Your task to perform on an android device: change the clock style Image 0: 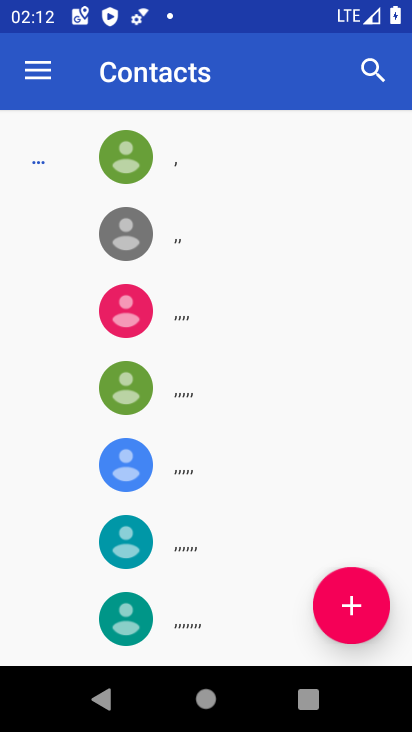
Step 0: press home button
Your task to perform on an android device: change the clock style Image 1: 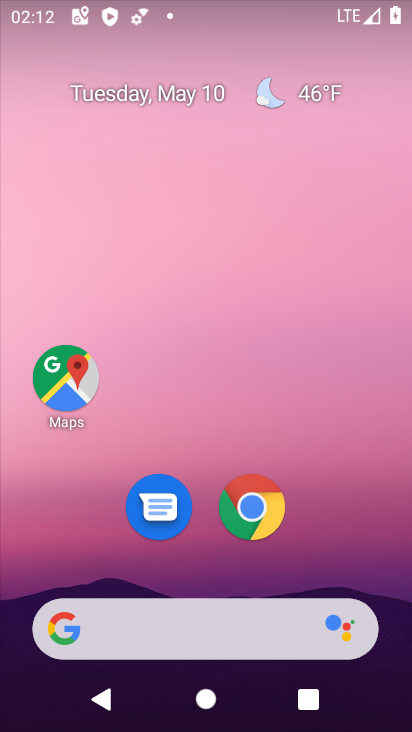
Step 1: drag from (243, 656) to (266, 168)
Your task to perform on an android device: change the clock style Image 2: 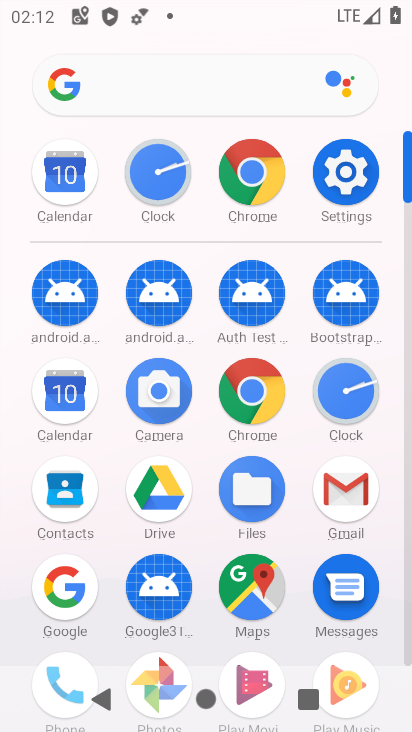
Step 2: click (323, 390)
Your task to perform on an android device: change the clock style Image 3: 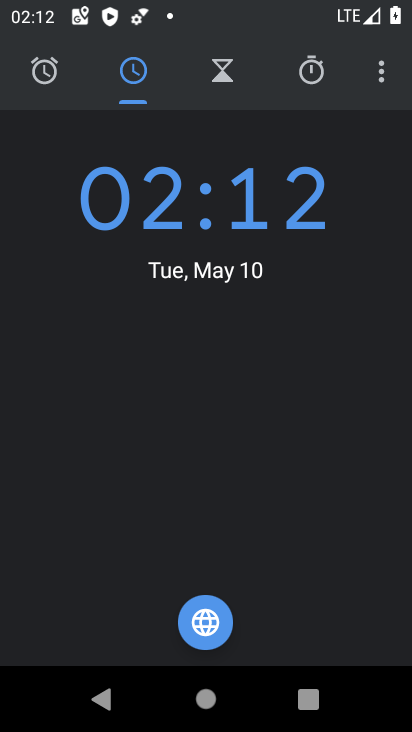
Step 3: click (380, 95)
Your task to perform on an android device: change the clock style Image 4: 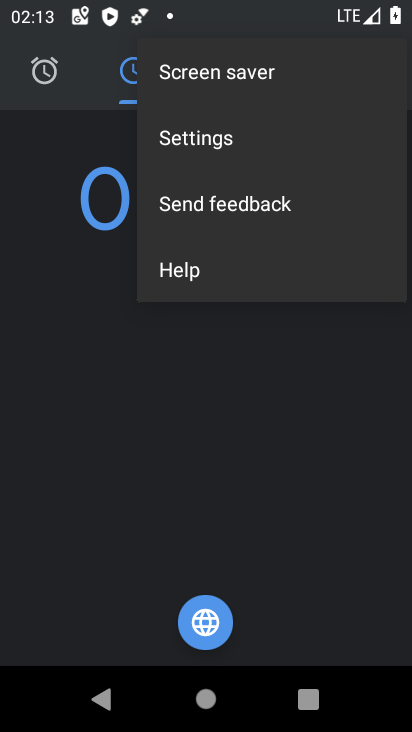
Step 4: click (226, 134)
Your task to perform on an android device: change the clock style Image 5: 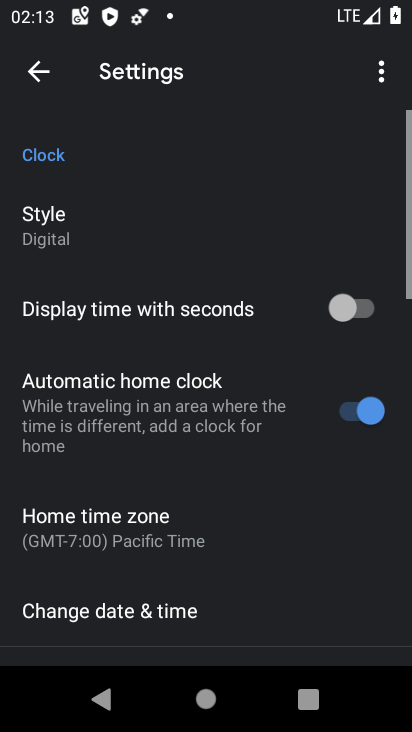
Step 5: click (110, 228)
Your task to perform on an android device: change the clock style Image 6: 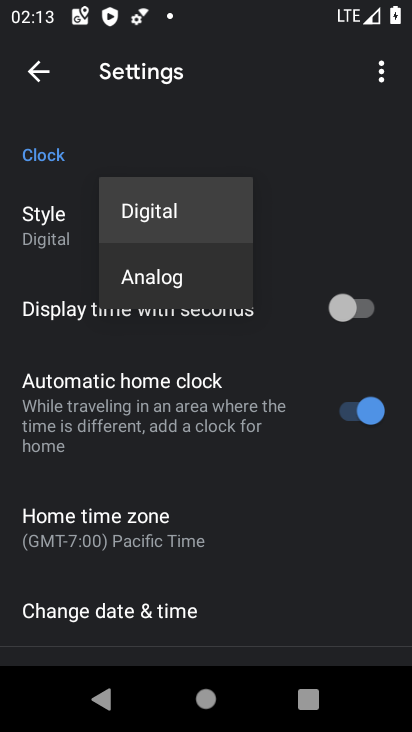
Step 6: click (132, 287)
Your task to perform on an android device: change the clock style Image 7: 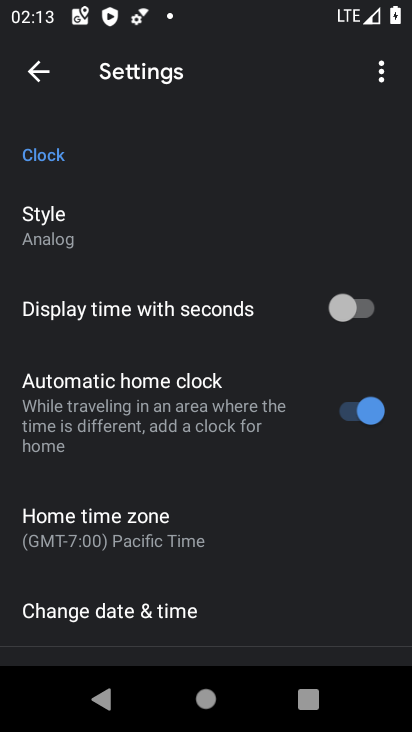
Step 7: task complete